Your task to perform on an android device: check storage Image 0: 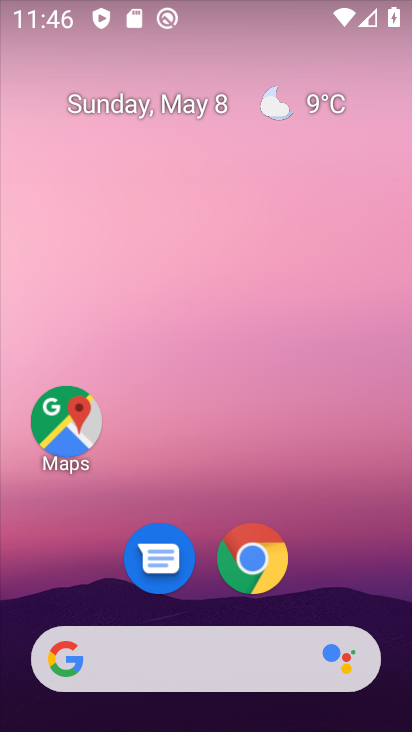
Step 0: drag from (243, 662) to (203, 28)
Your task to perform on an android device: check storage Image 1: 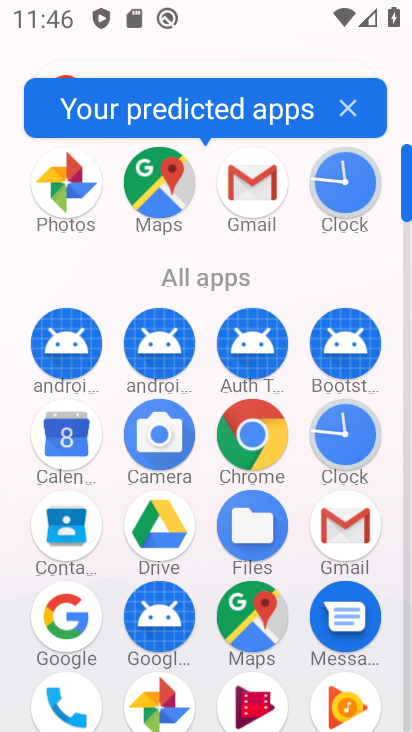
Step 1: drag from (241, 629) to (234, 158)
Your task to perform on an android device: check storage Image 2: 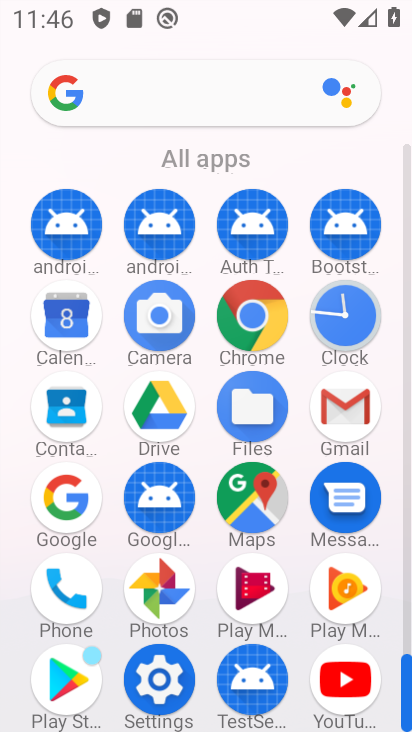
Step 2: click (161, 678)
Your task to perform on an android device: check storage Image 3: 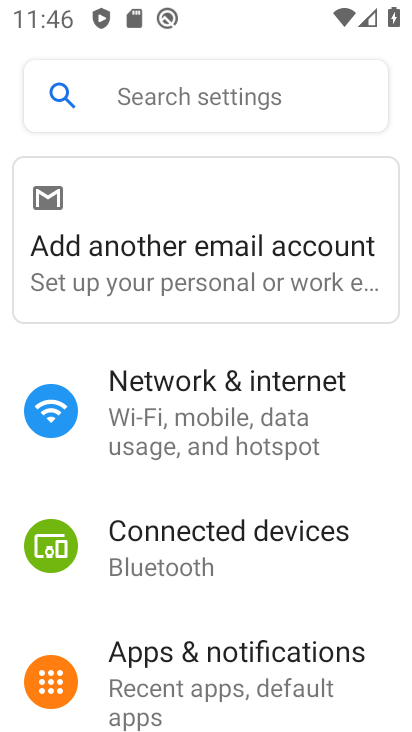
Step 3: drag from (259, 605) to (244, 57)
Your task to perform on an android device: check storage Image 4: 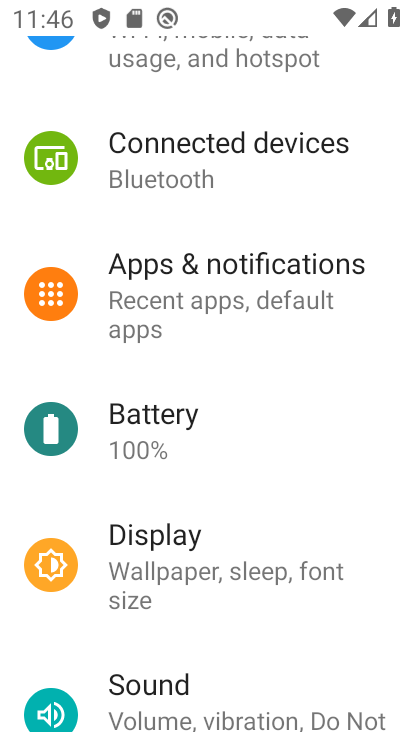
Step 4: drag from (196, 627) to (156, 20)
Your task to perform on an android device: check storage Image 5: 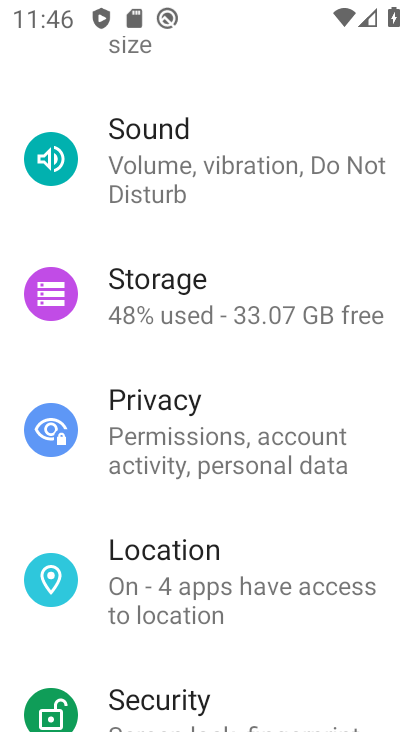
Step 5: click (157, 321)
Your task to perform on an android device: check storage Image 6: 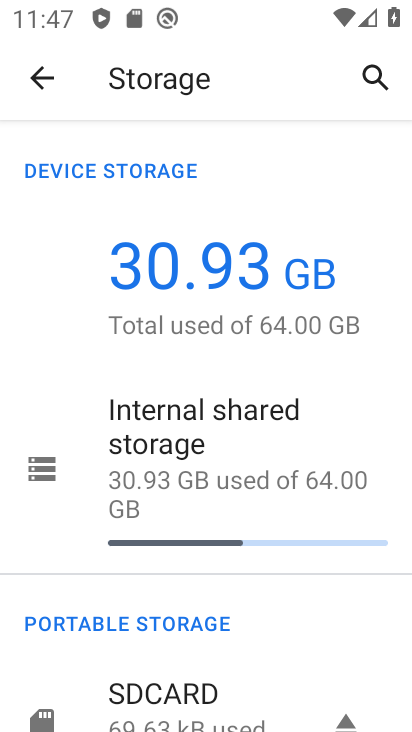
Step 6: click (227, 418)
Your task to perform on an android device: check storage Image 7: 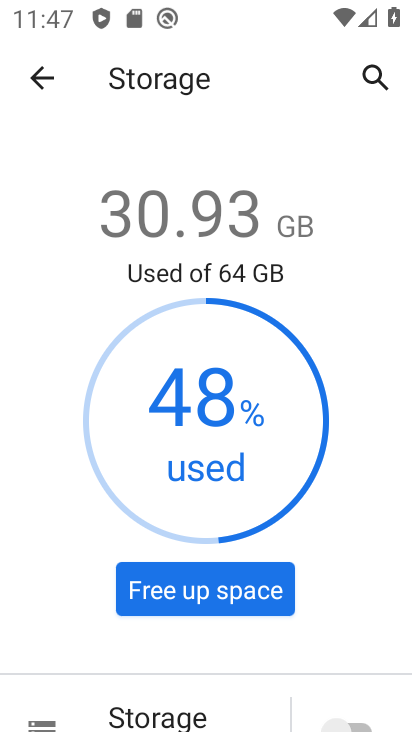
Step 7: task complete